Your task to perform on an android device: open chrome privacy settings Image 0: 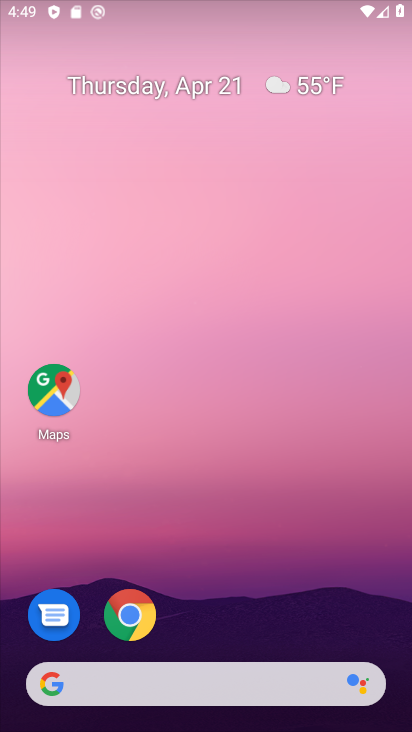
Step 0: drag from (278, 546) to (182, 37)
Your task to perform on an android device: open chrome privacy settings Image 1: 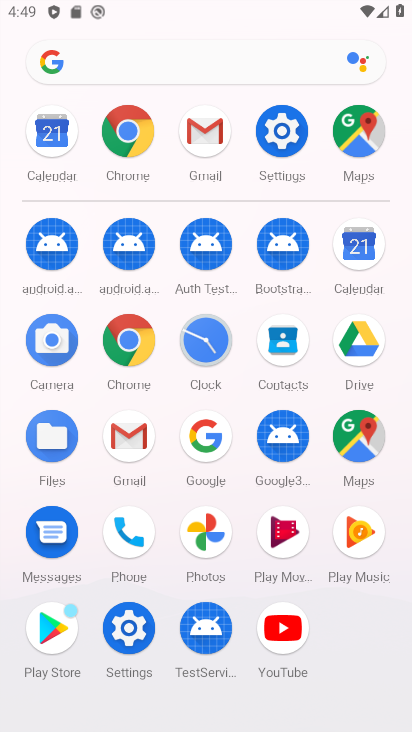
Step 1: click (130, 338)
Your task to perform on an android device: open chrome privacy settings Image 2: 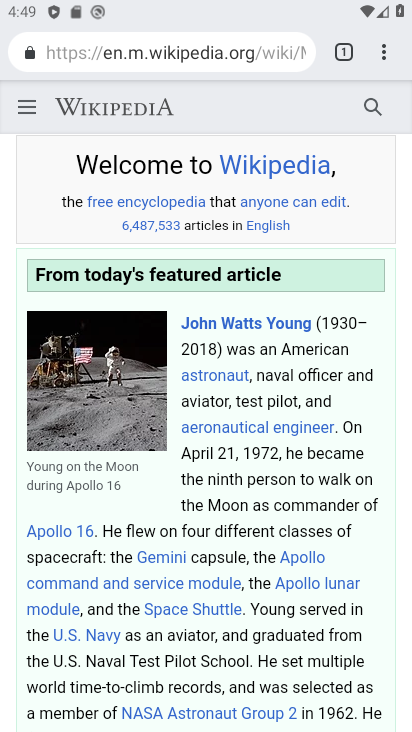
Step 2: drag from (385, 52) to (220, 646)
Your task to perform on an android device: open chrome privacy settings Image 3: 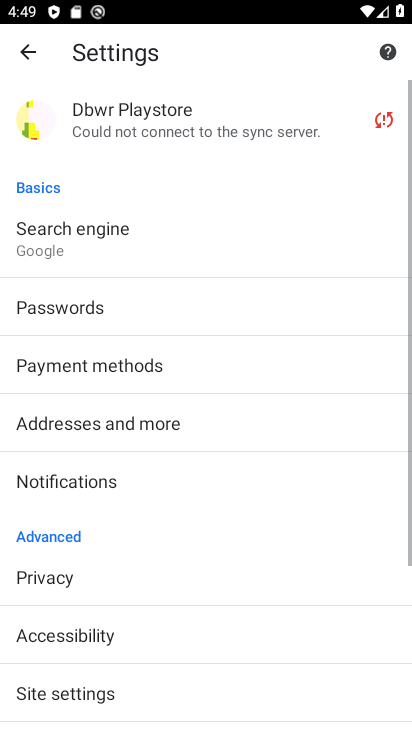
Step 3: drag from (249, 556) to (265, 258)
Your task to perform on an android device: open chrome privacy settings Image 4: 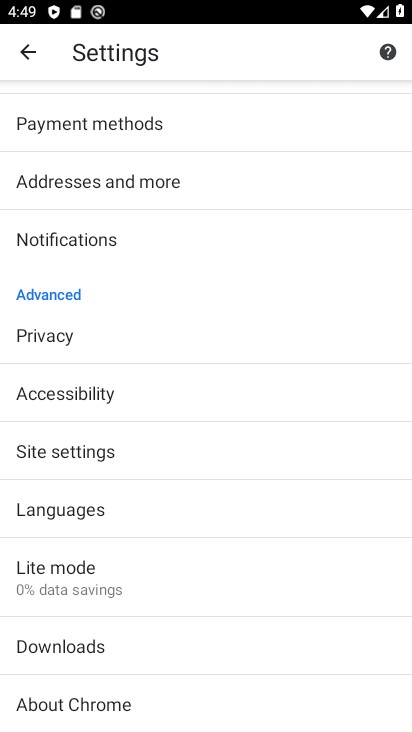
Step 4: click (75, 335)
Your task to perform on an android device: open chrome privacy settings Image 5: 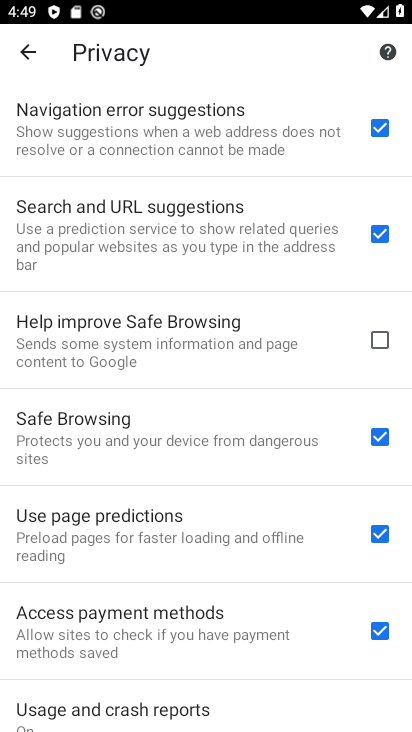
Step 5: task complete